Your task to perform on an android device: Open Youtube and go to "Your channel" Image 0: 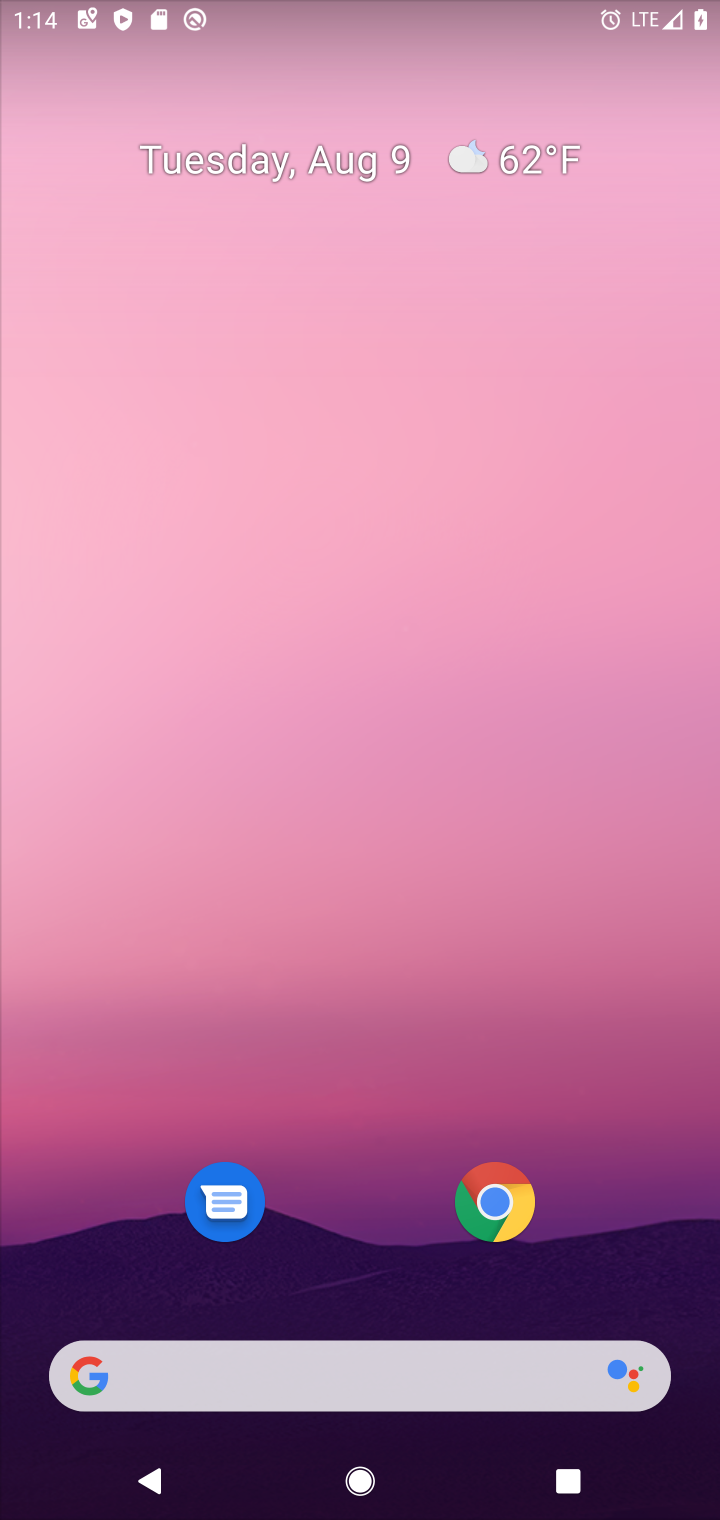
Step 0: click (326, 1265)
Your task to perform on an android device: Open Youtube and go to "Your channel" Image 1: 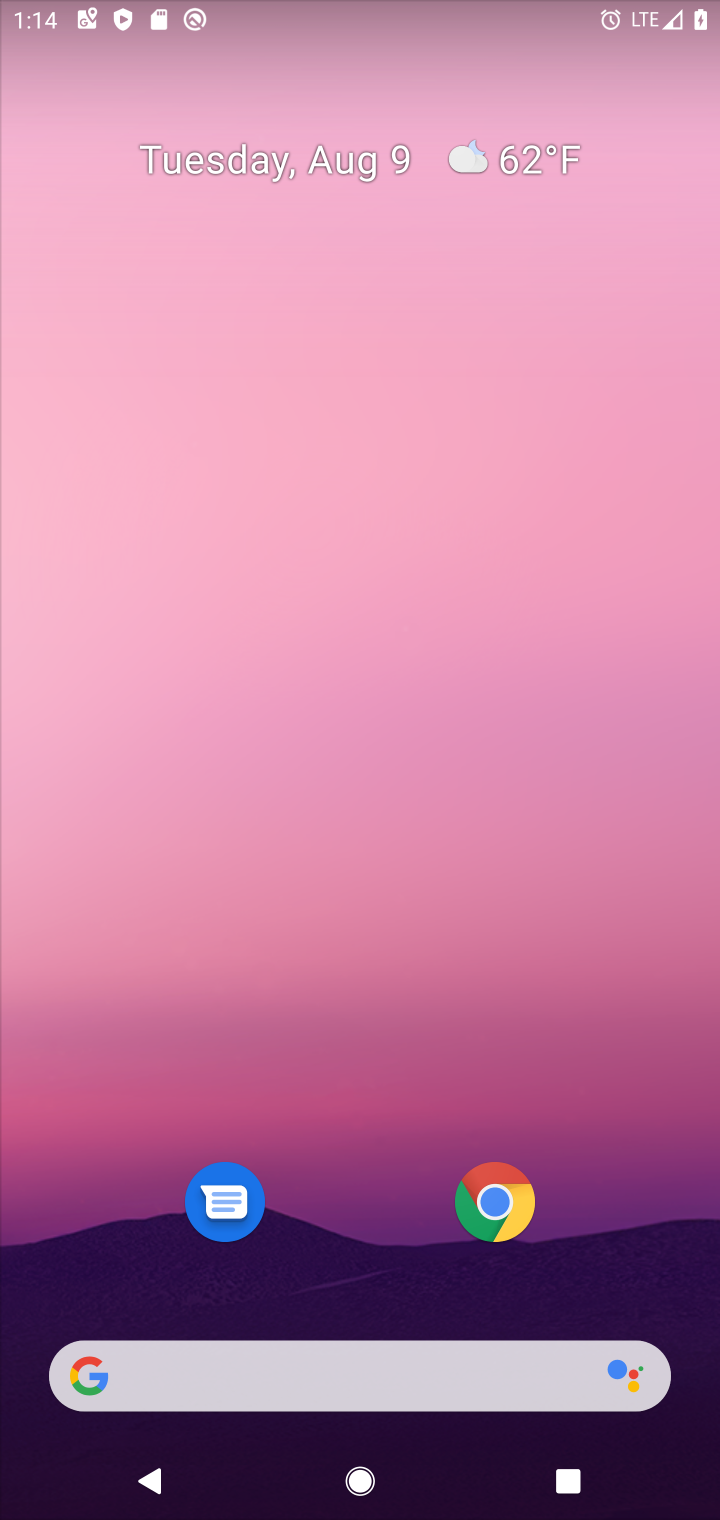
Step 1: drag from (331, 1137) to (290, 5)
Your task to perform on an android device: Open Youtube and go to "Your channel" Image 2: 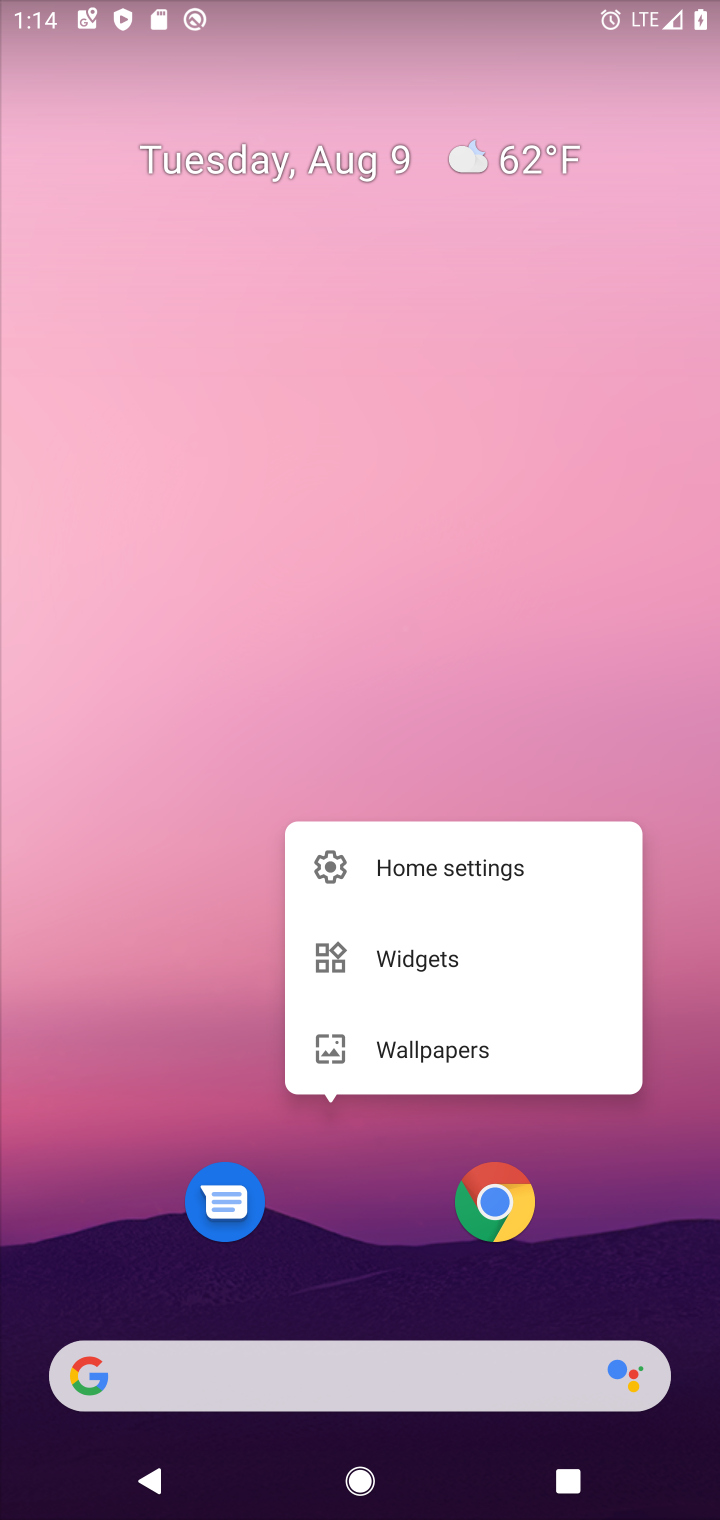
Step 2: click (342, 1206)
Your task to perform on an android device: Open Youtube and go to "Your channel" Image 3: 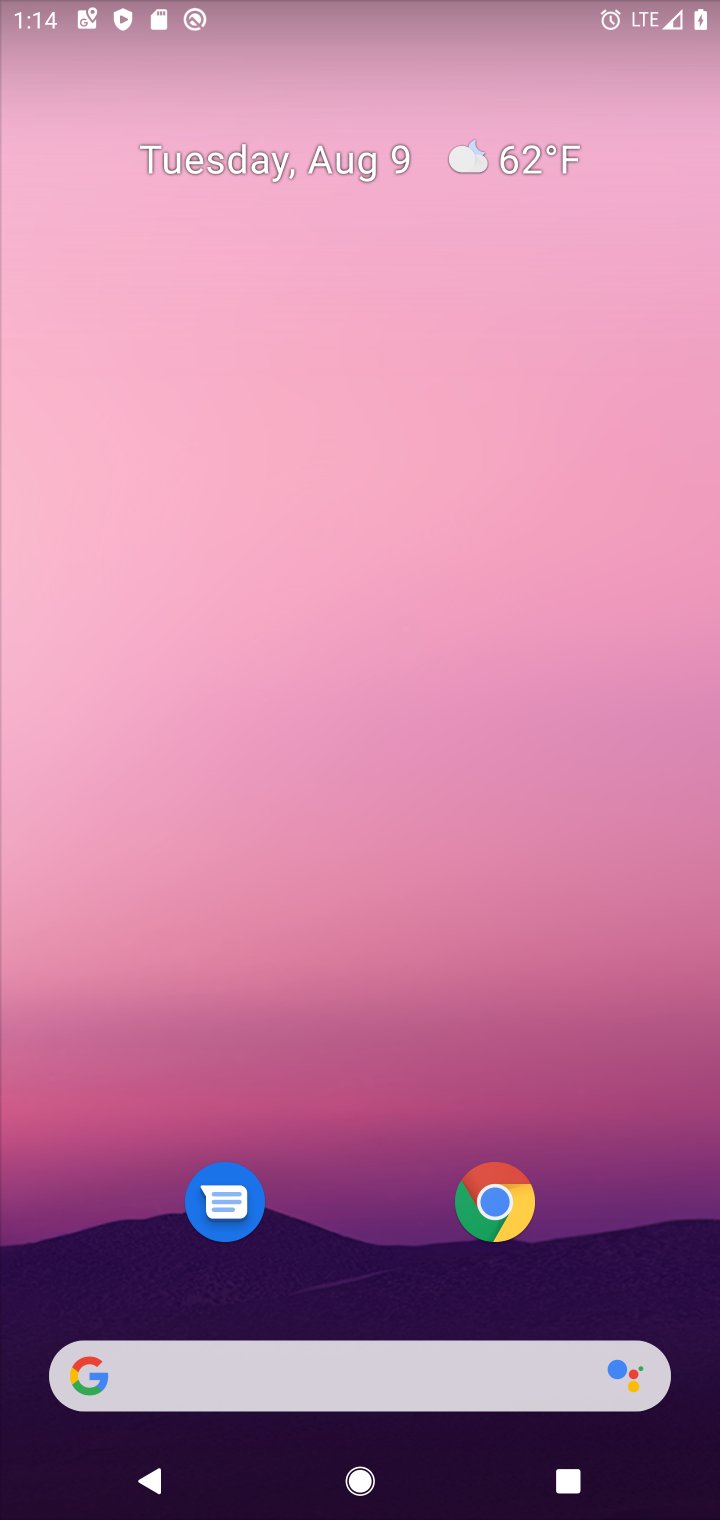
Step 3: drag from (342, 1118) to (396, 214)
Your task to perform on an android device: Open Youtube and go to "Your channel" Image 4: 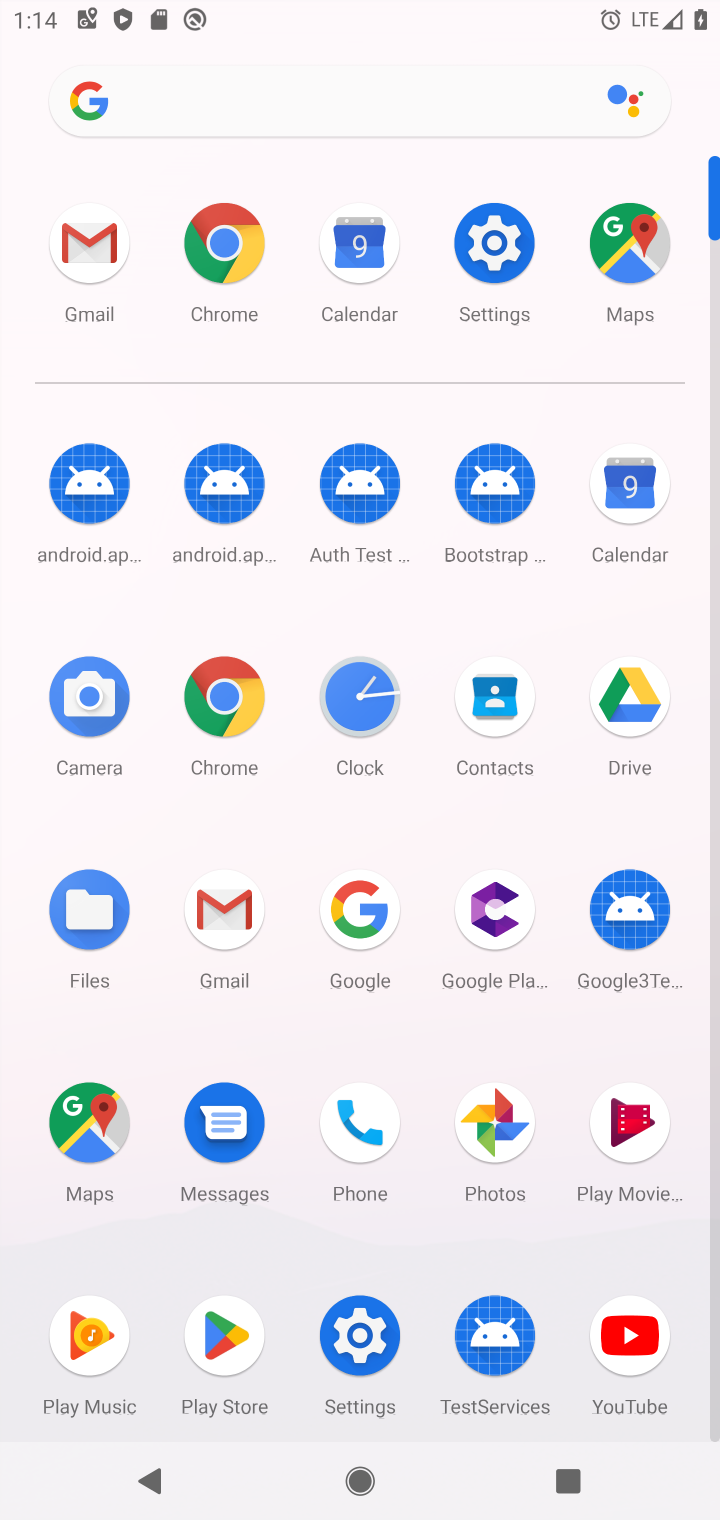
Step 4: click (630, 1348)
Your task to perform on an android device: Open Youtube and go to "Your channel" Image 5: 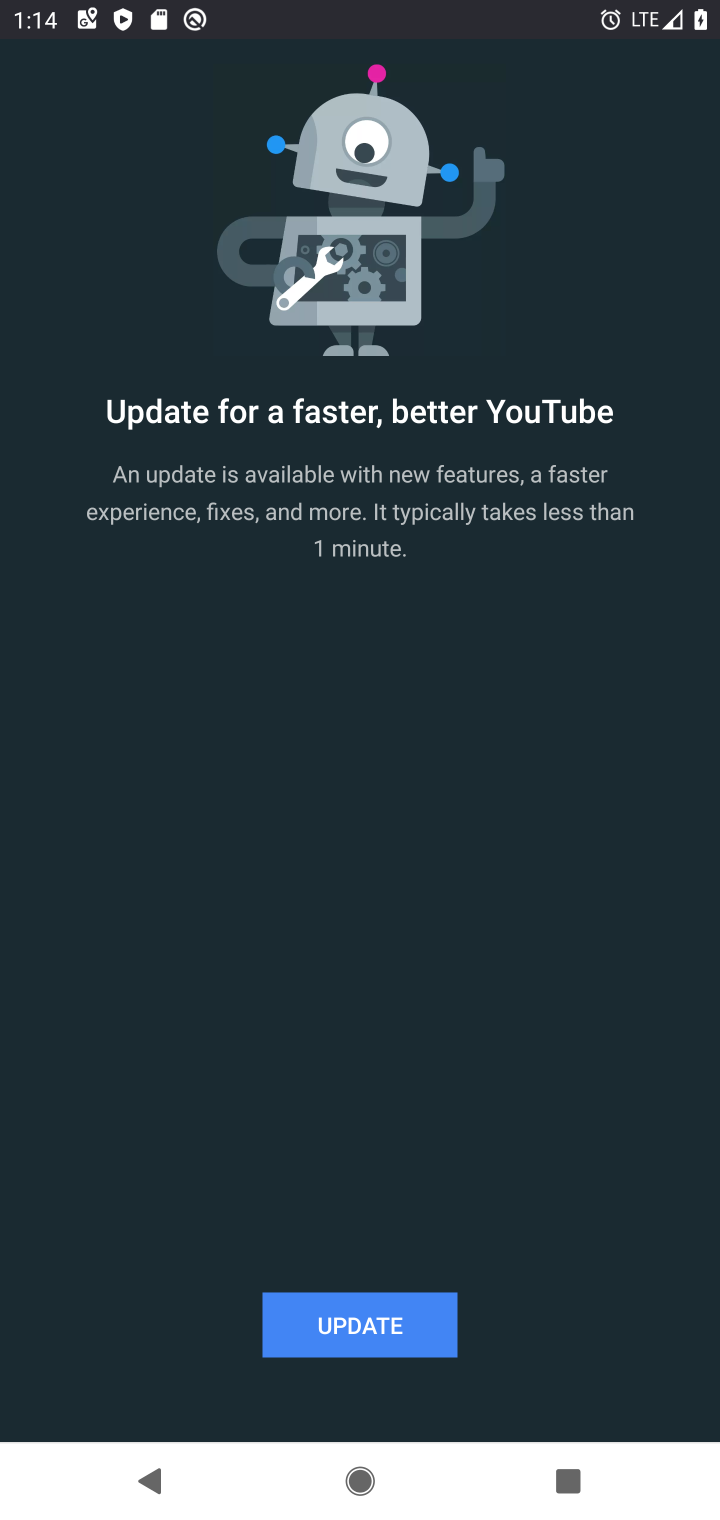
Step 5: click (363, 1310)
Your task to perform on an android device: Open Youtube and go to "Your channel" Image 6: 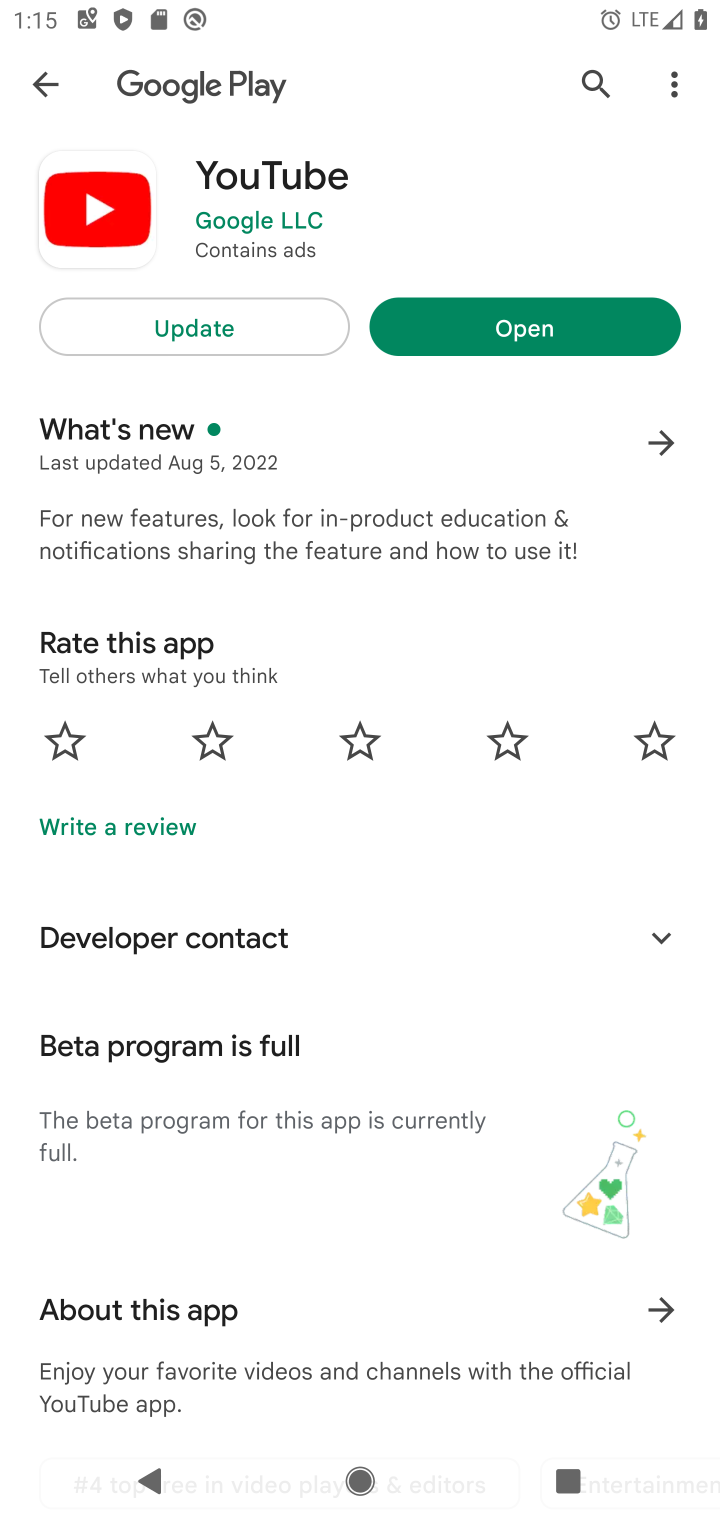
Step 6: click (165, 329)
Your task to perform on an android device: Open Youtube and go to "Your channel" Image 7: 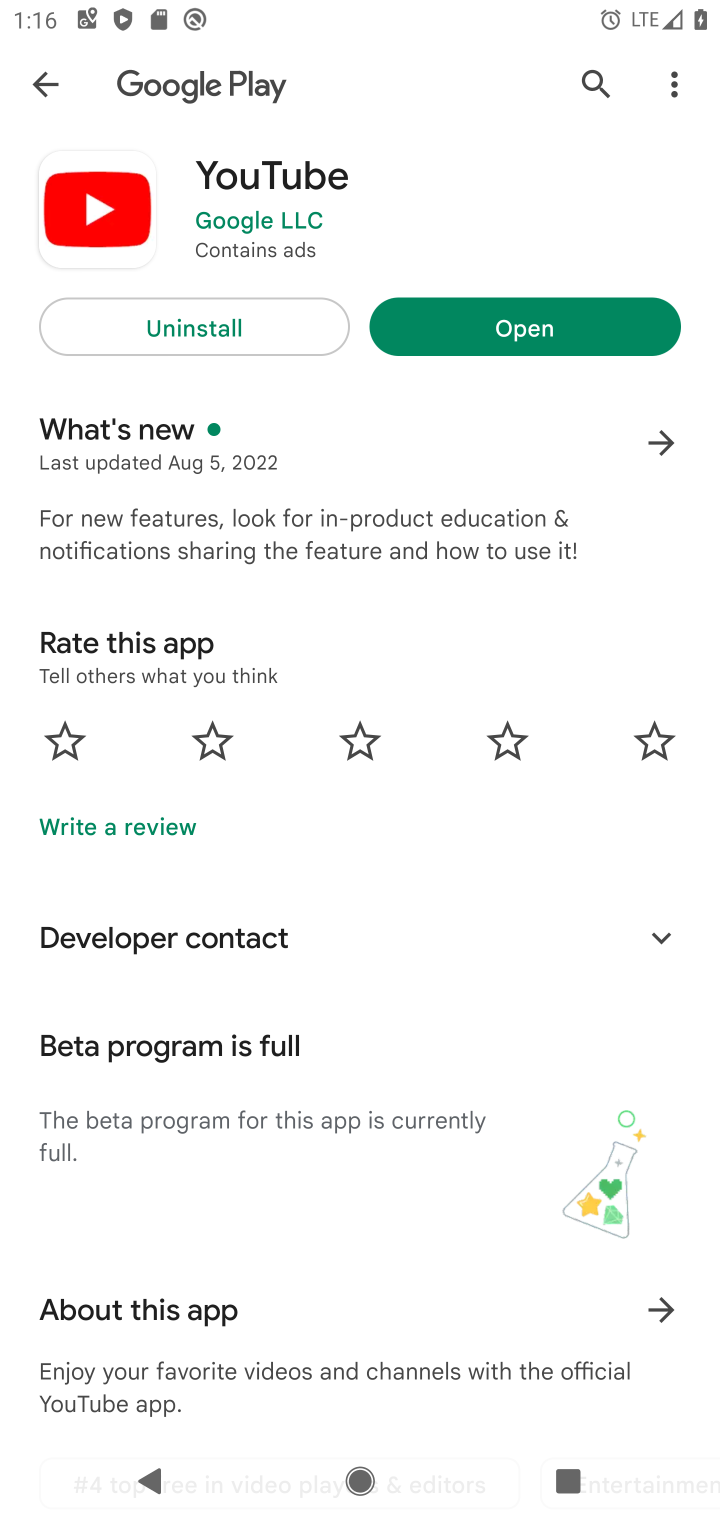
Step 7: click (475, 312)
Your task to perform on an android device: Open Youtube and go to "Your channel" Image 8: 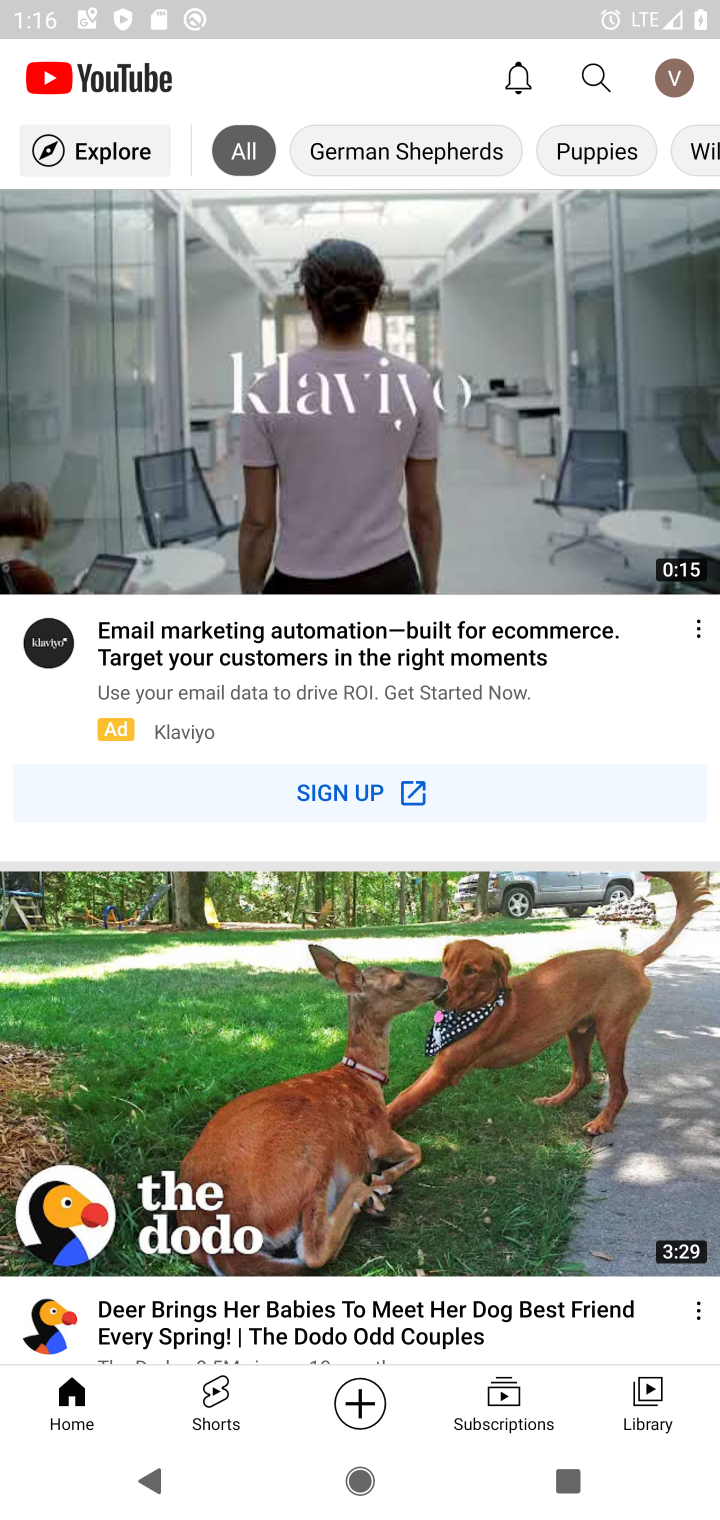
Step 8: click (678, 67)
Your task to perform on an android device: Open Youtube and go to "Your channel" Image 9: 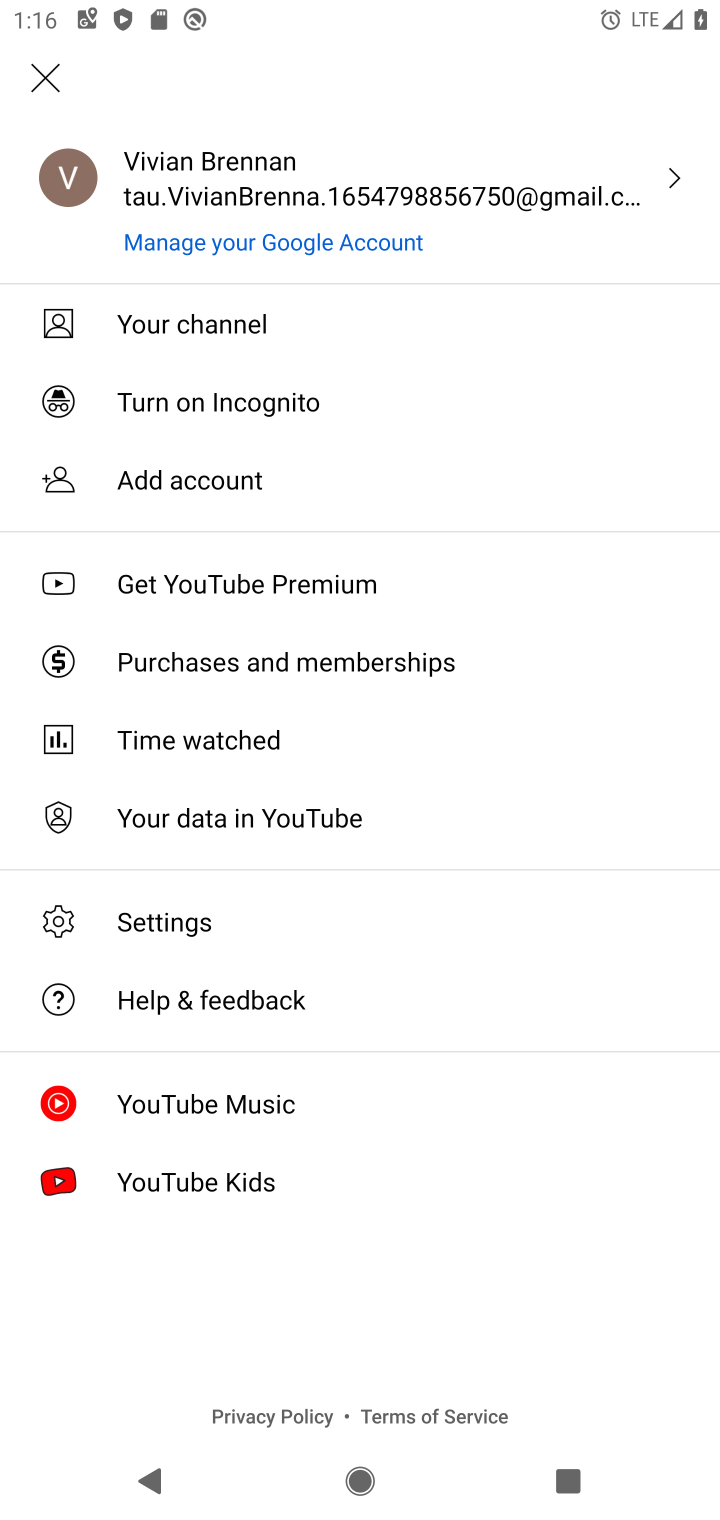
Step 9: click (63, 172)
Your task to perform on an android device: Open Youtube and go to "Your channel" Image 10: 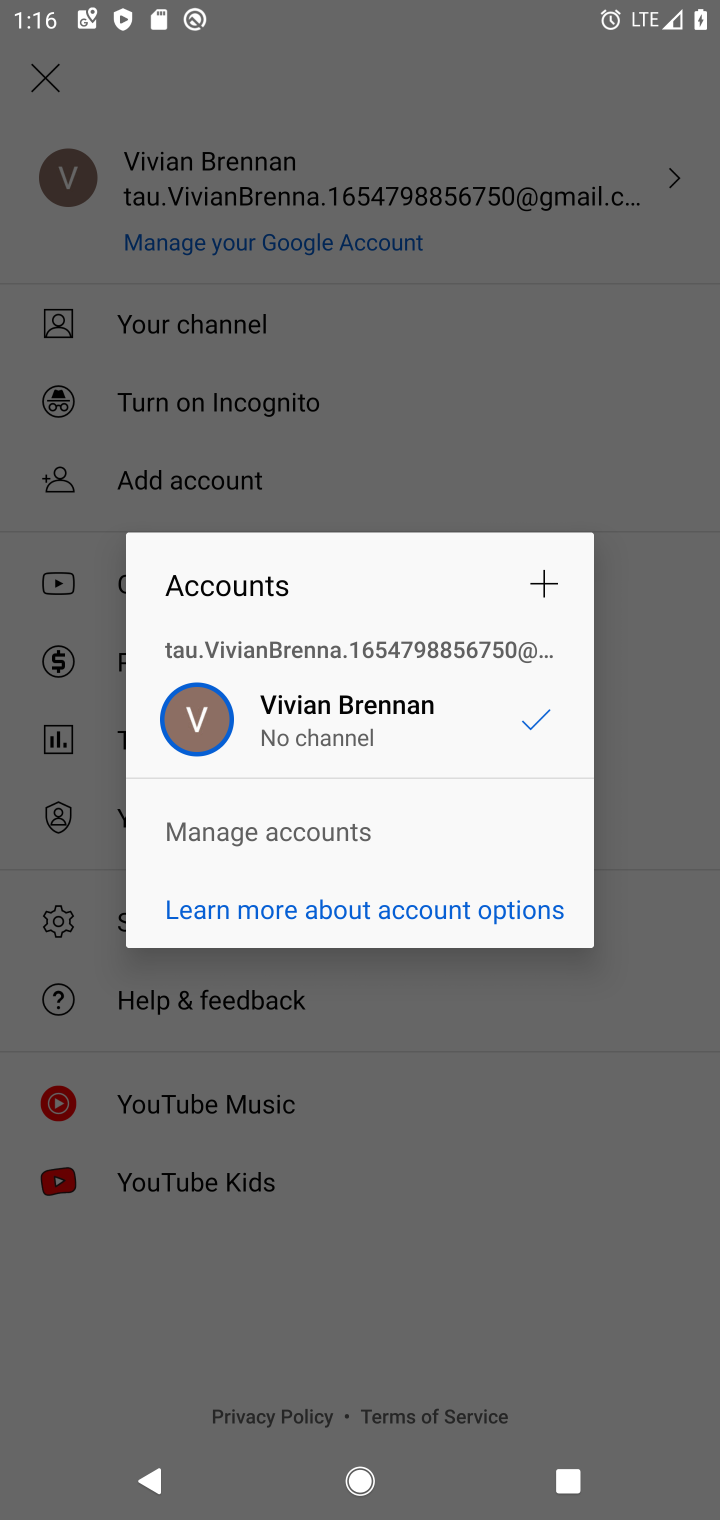
Step 10: task complete